Your task to perform on an android device: Search for Italian restaurants on Maps Image 0: 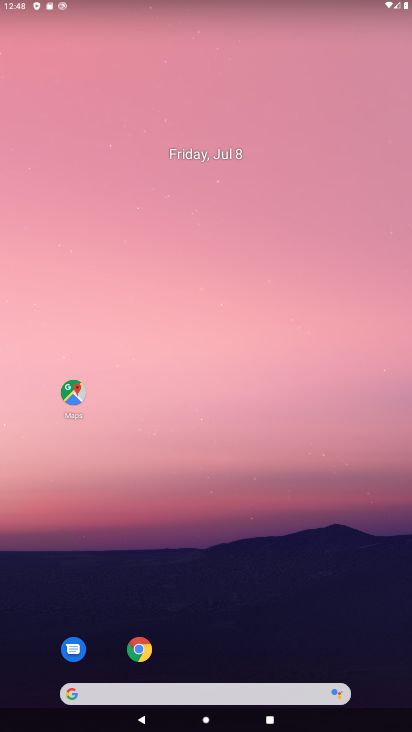
Step 0: drag from (20, 718) to (392, 624)
Your task to perform on an android device: Search for Italian restaurants on Maps Image 1: 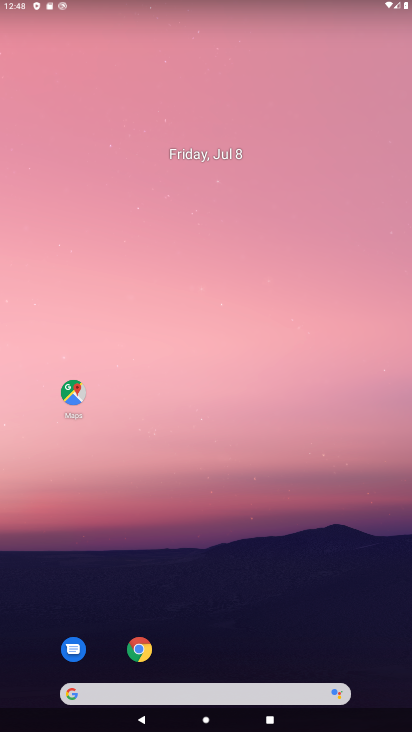
Step 1: click (64, 389)
Your task to perform on an android device: Search for Italian restaurants on Maps Image 2: 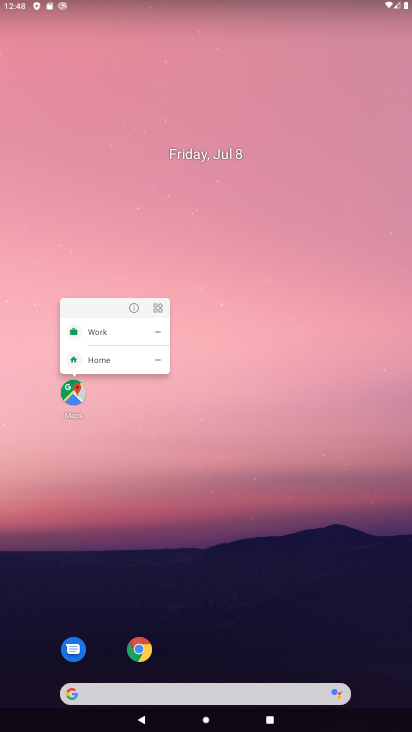
Step 2: click (65, 404)
Your task to perform on an android device: Search for Italian restaurants on Maps Image 3: 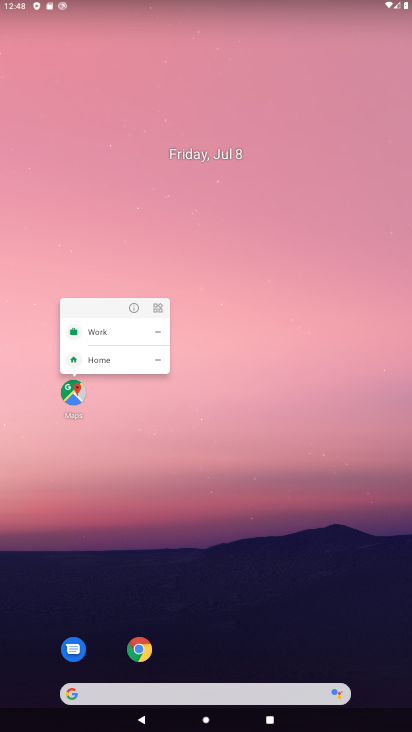
Step 3: click (61, 388)
Your task to perform on an android device: Search for Italian restaurants on Maps Image 4: 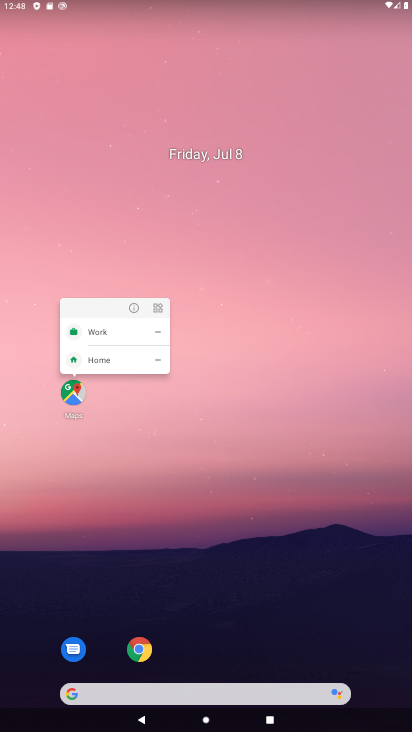
Step 4: click (75, 378)
Your task to perform on an android device: Search for Italian restaurants on Maps Image 5: 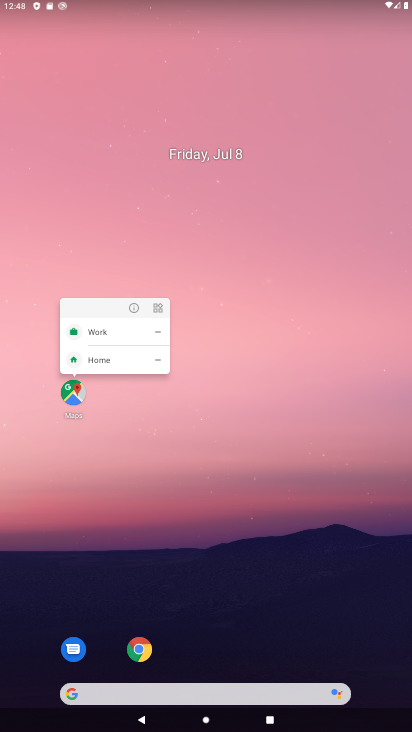
Step 5: click (67, 381)
Your task to perform on an android device: Search for Italian restaurants on Maps Image 6: 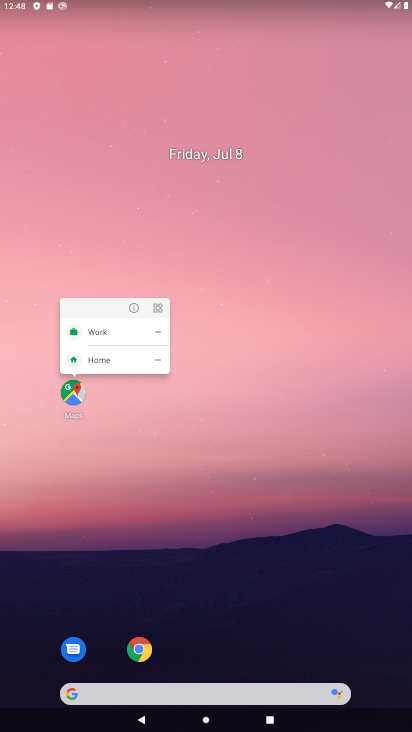
Step 6: task complete